Your task to perform on an android device: How big is a tiger? Image 0: 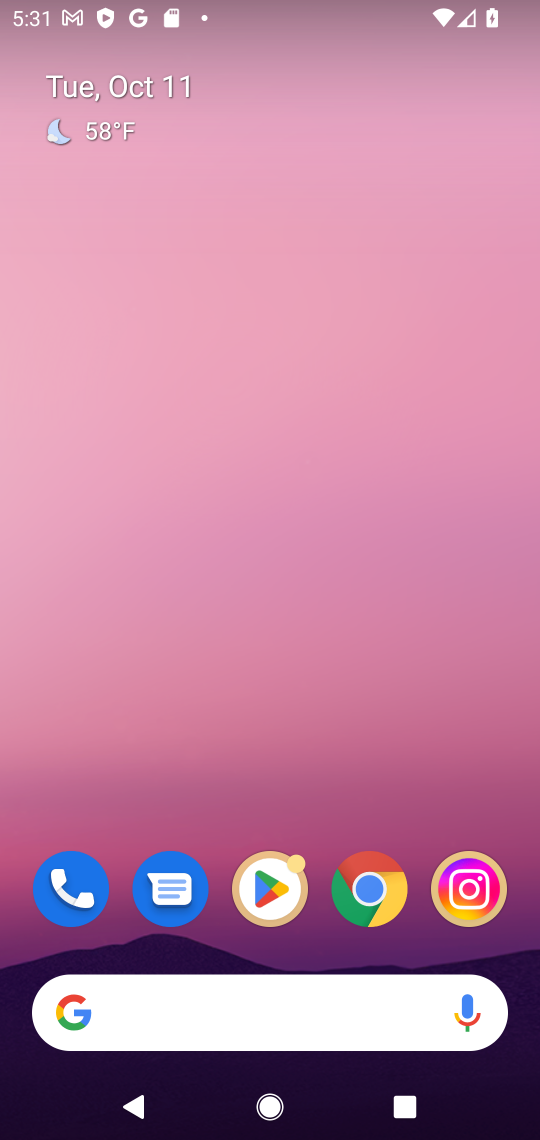
Step 0: drag from (238, 522) to (228, 321)
Your task to perform on an android device: How big is a tiger? Image 1: 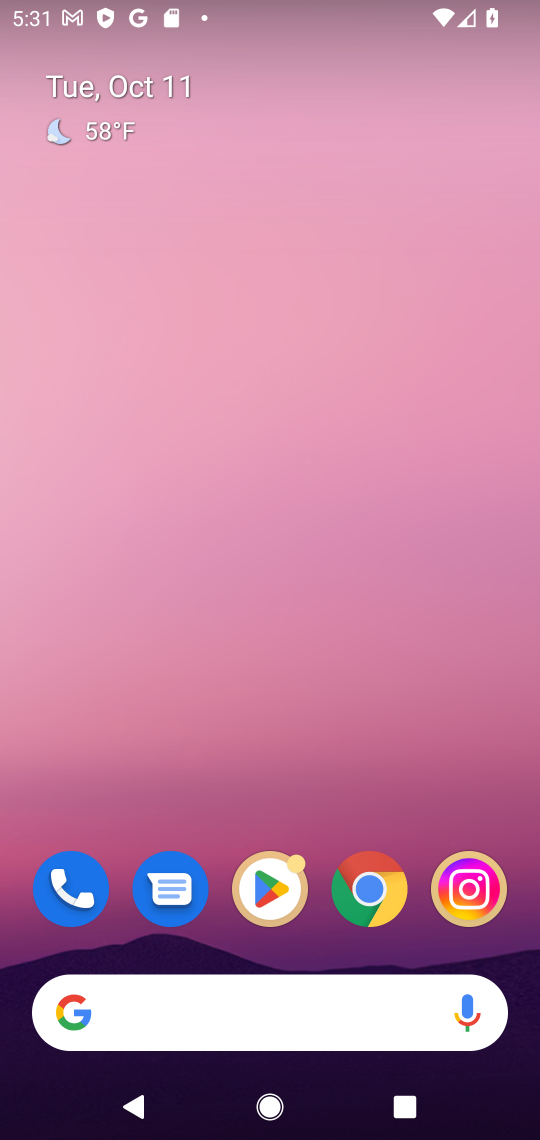
Step 1: drag from (154, 943) to (194, 261)
Your task to perform on an android device: How big is a tiger? Image 2: 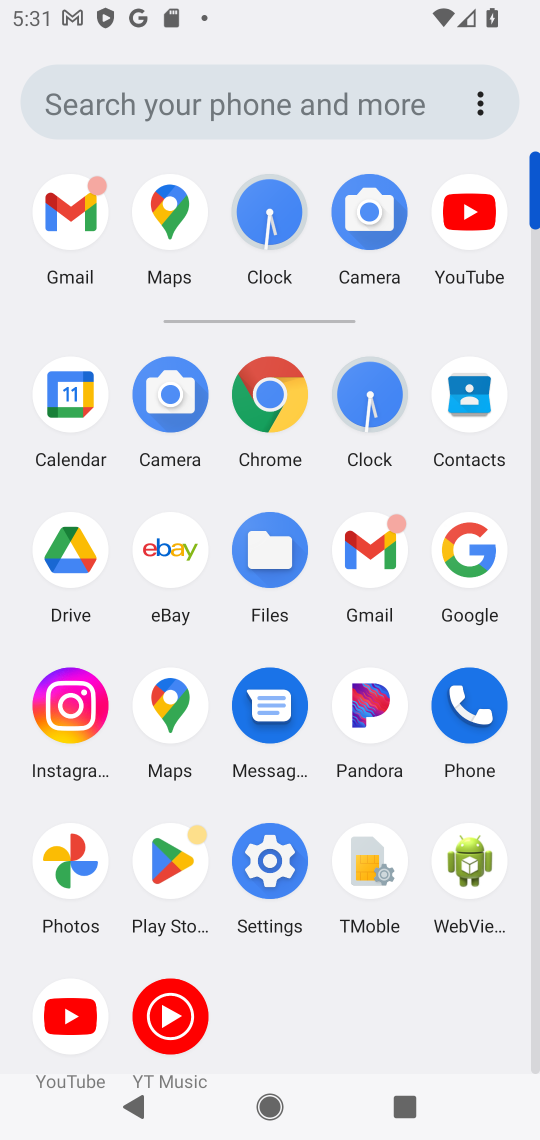
Step 2: click (457, 530)
Your task to perform on an android device: How big is a tiger? Image 3: 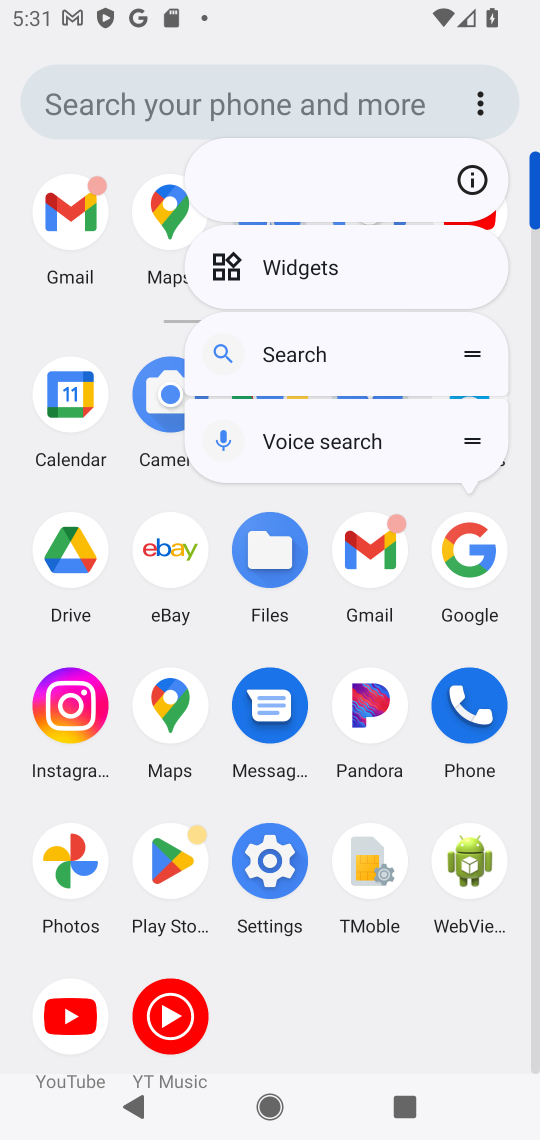
Step 3: click (466, 541)
Your task to perform on an android device: How big is a tiger? Image 4: 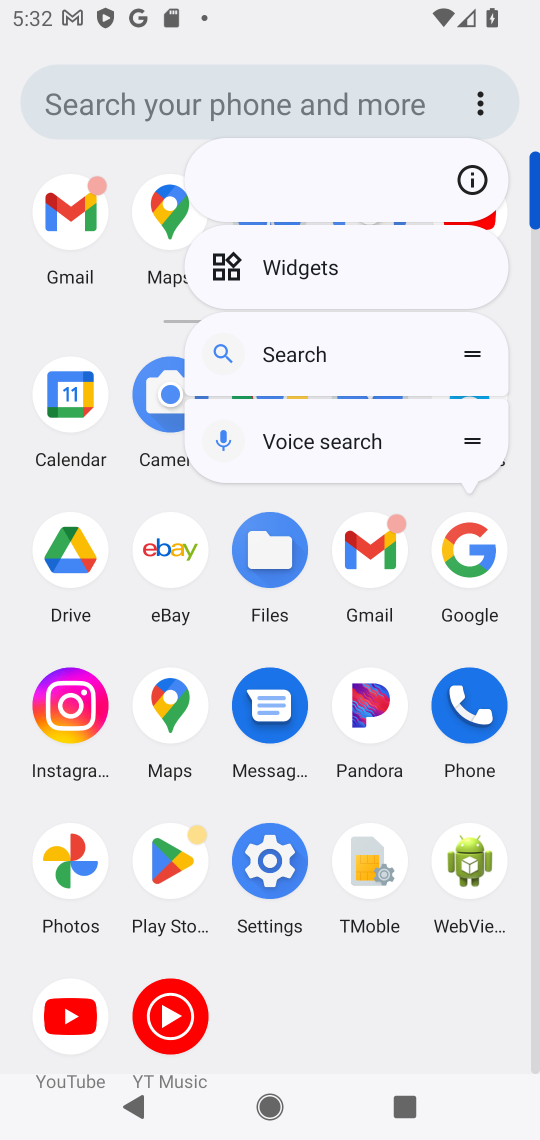
Step 4: click (466, 541)
Your task to perform on an android device: How big is a tiger? Image 5: 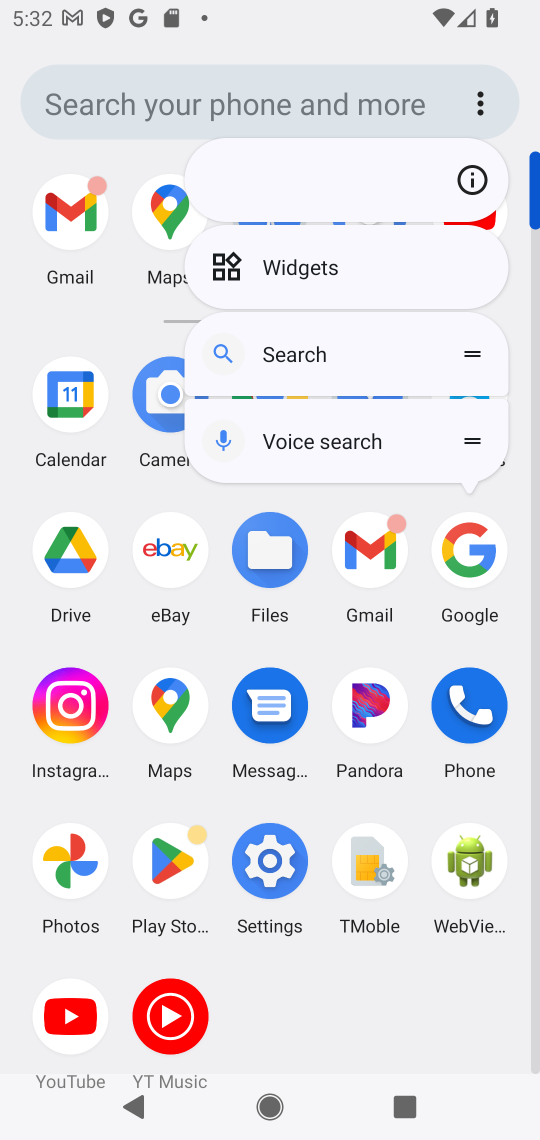
Step 5: click (466, 541)
Your task to perform on an android device: How big is a tiger? Image 6: 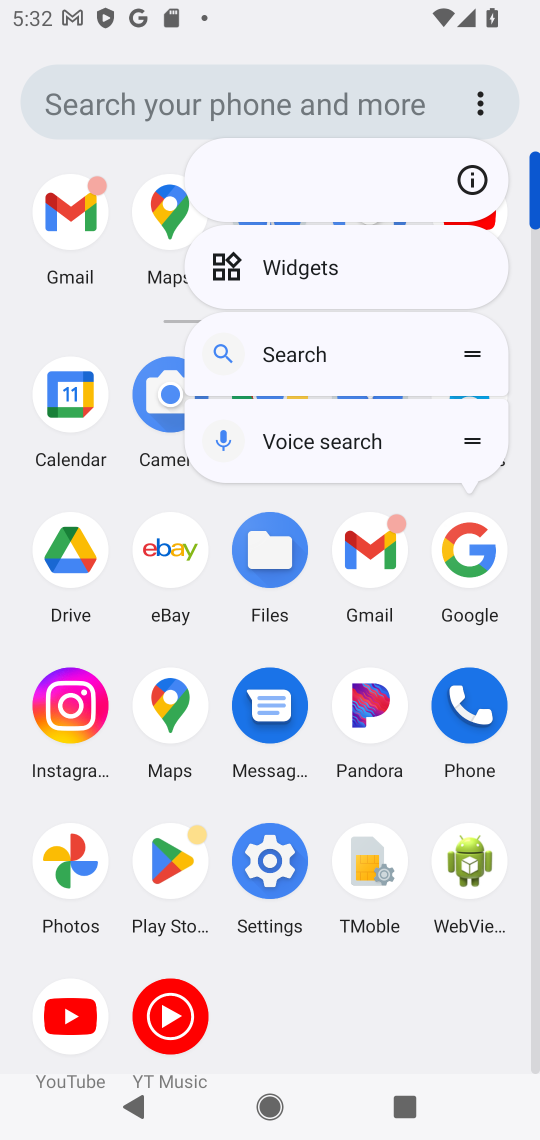
Step 6: click (471, 526)
Your task to perform on an android device: How big is a tiger? Image 7: 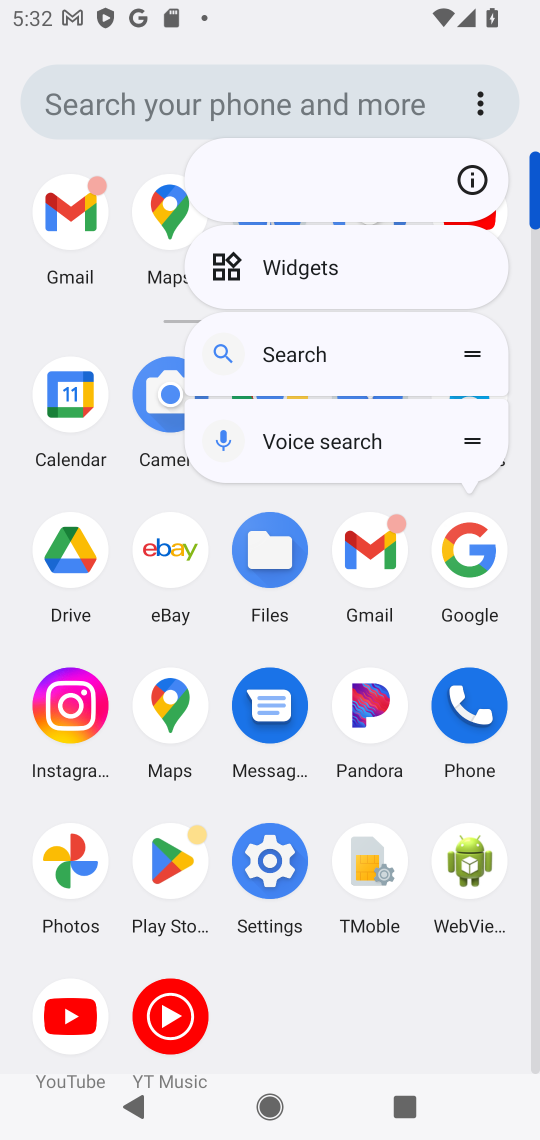
Step 7: click (463, 548)
Your task to perform on an android device: How big is a tiger? Image 8: 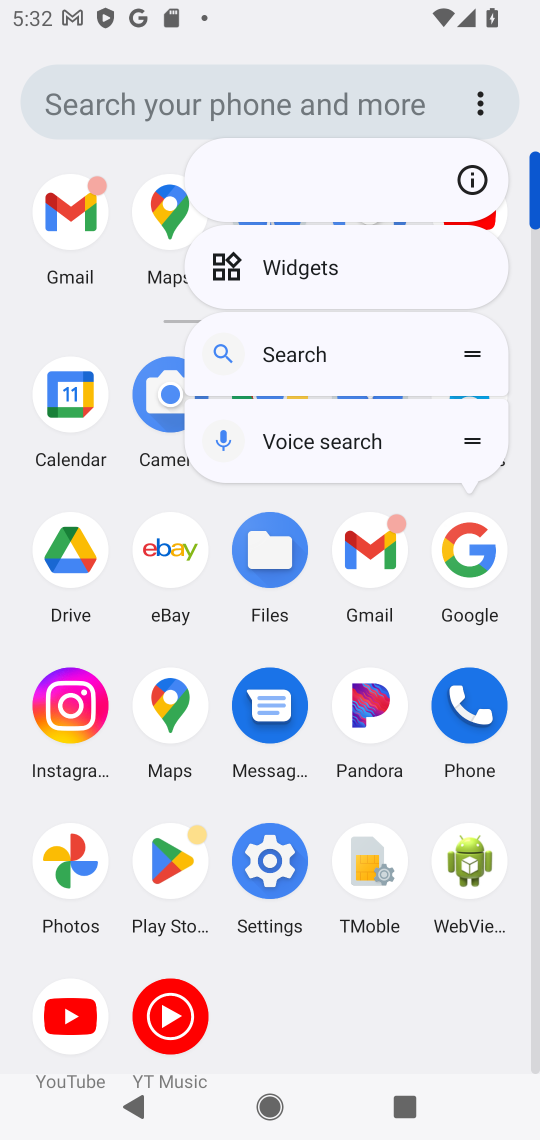
Step 8: click (463, 548)
Your task to perform on an android device: How big is a tiger? Image 9: 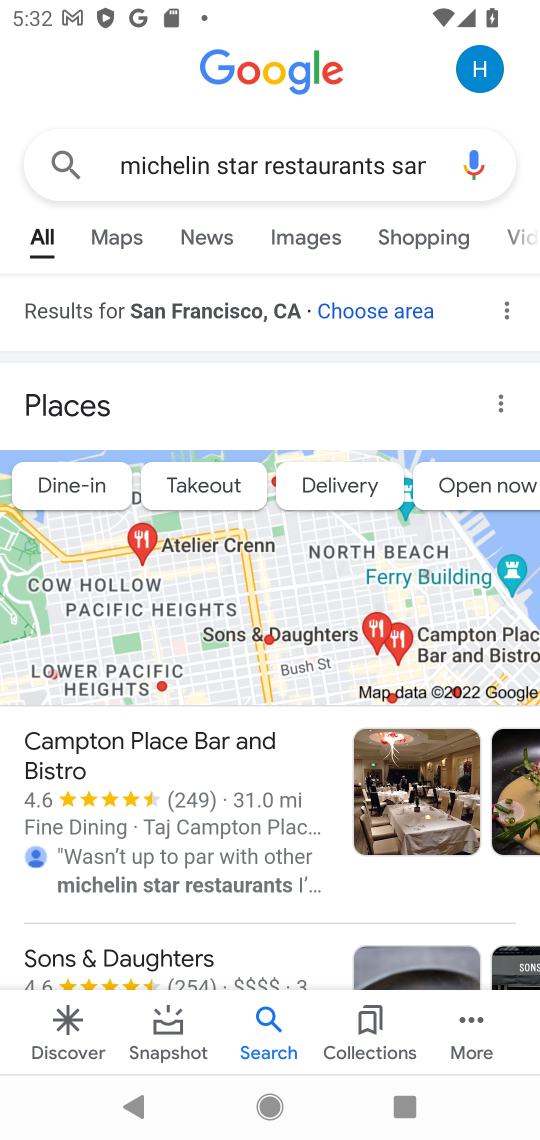
Step 9: click (223, 171)
Your task to perform on an android device: How big is a tiger? Image 10: 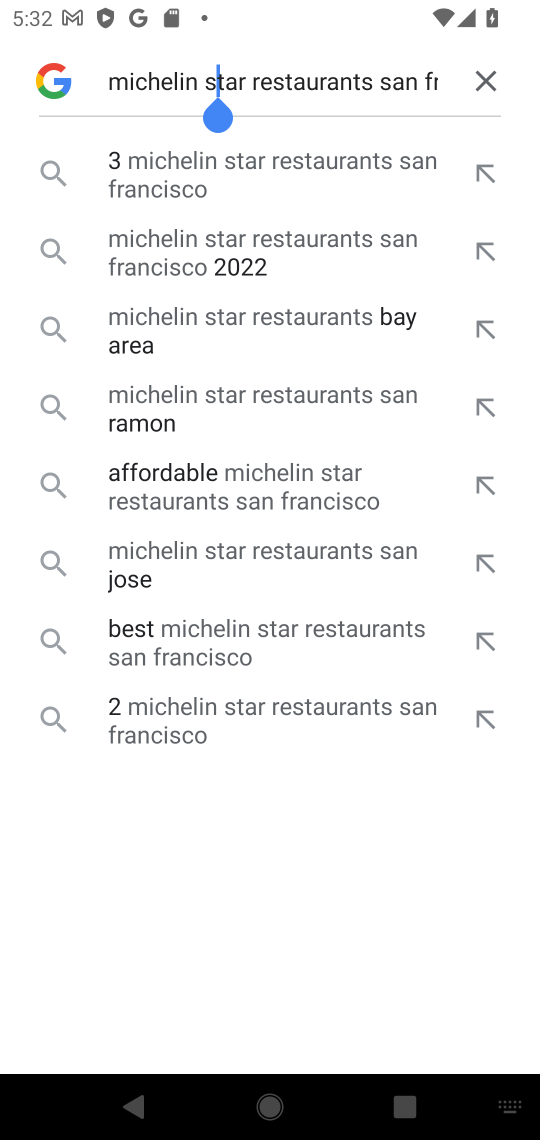
Step 10: click (477, 75)
Your task to perform on an android device: How big is a tiger? Image 11: 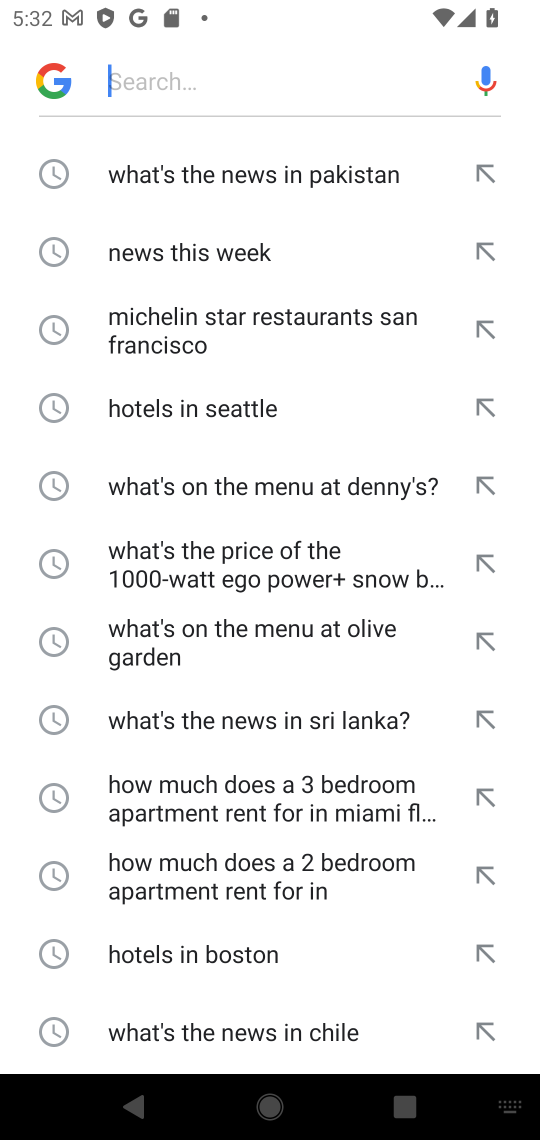
Step 11: click (353, 75)
Your task to perform on an android device: How big is a tiger? Image 12: 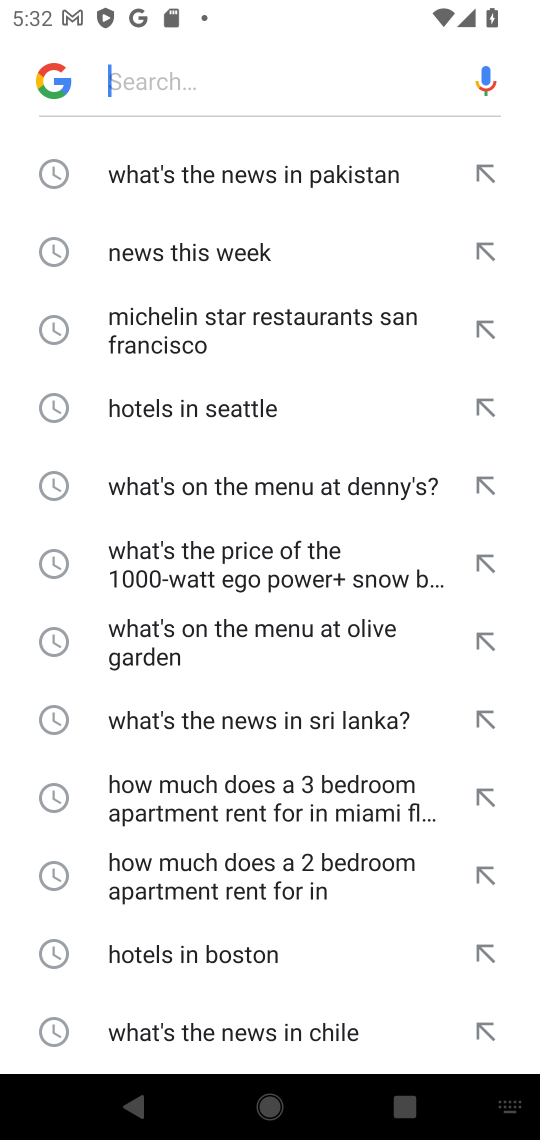
Step 12: click (255, 1133)
Your task to perform on an android device: How big is a tiger? Image 13: 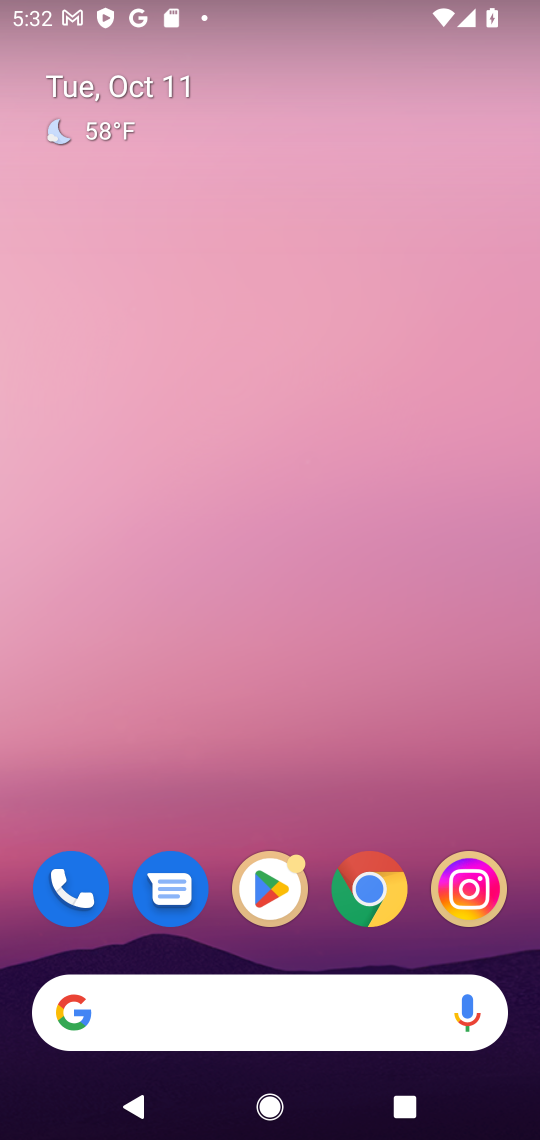
Step 13: drag from (187, 802) to (187, 257)
Your task to perform on an android device: How big is a tiger? Image 14: 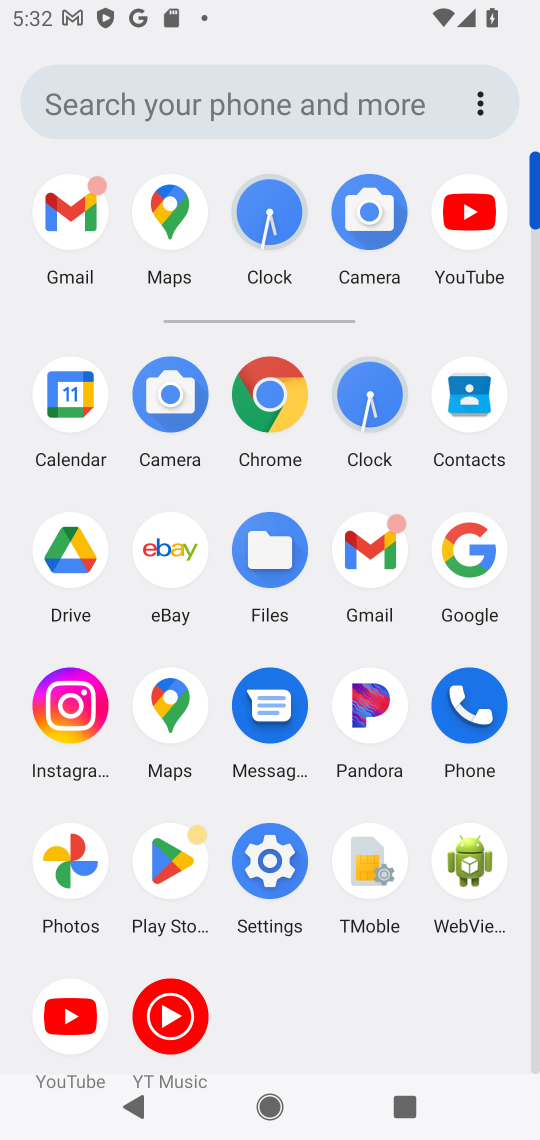
Step 14: click (450, 537)
Your task to perform on an android device: How big is a tiger? Image 15: 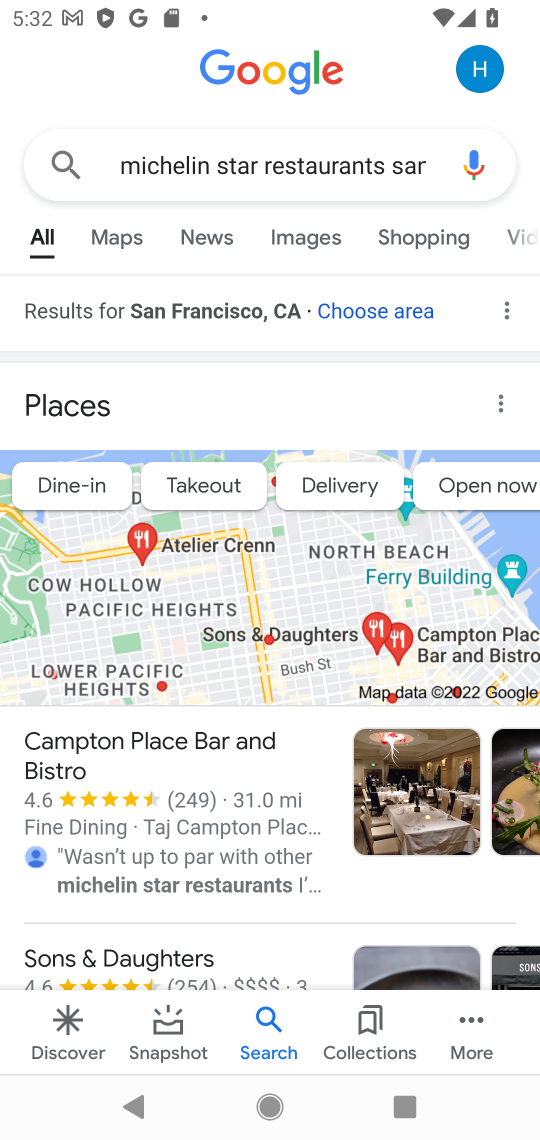
Step 15: click (376, 155)
Your task to perform on an android device: How big is a tiger? Image 16: 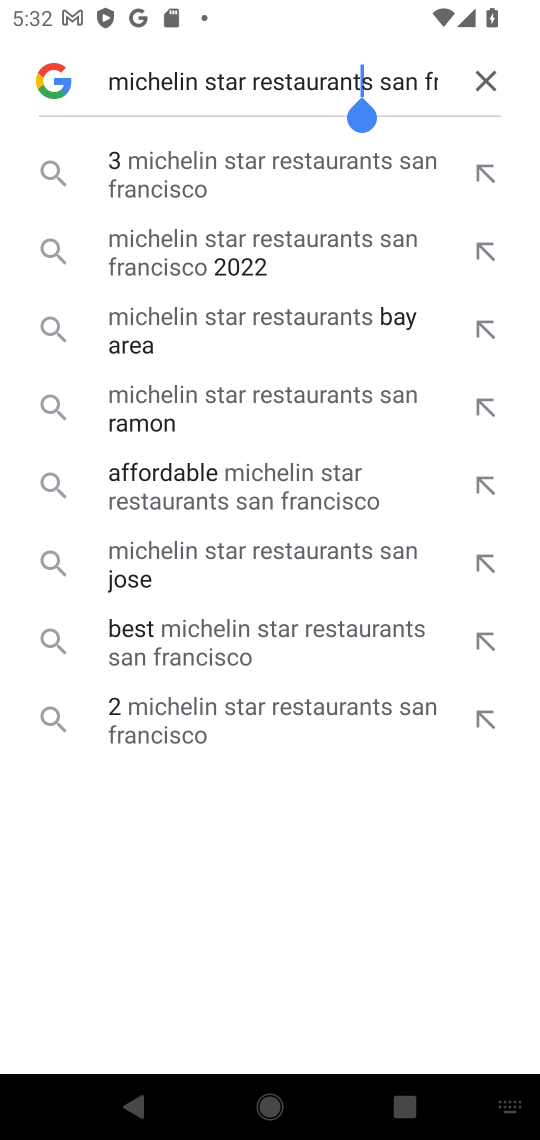
Step 16: click (468, 81)
Your task to perform on an android device: How big is a tiger? Image 17: 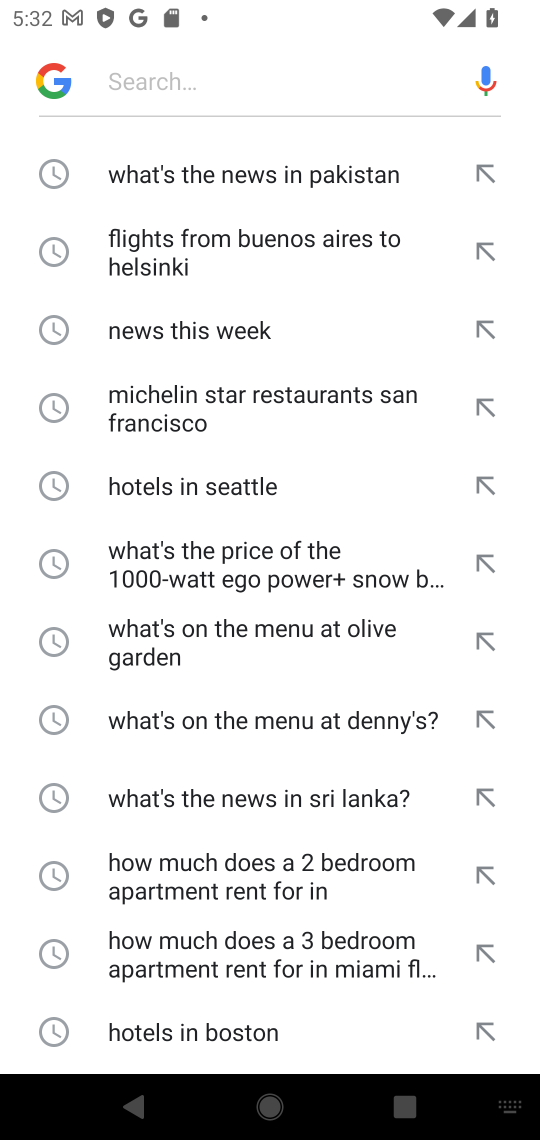
Step 17: click (155, 66)
Your task to perform on an android device: How big is a tiger? Image 18: 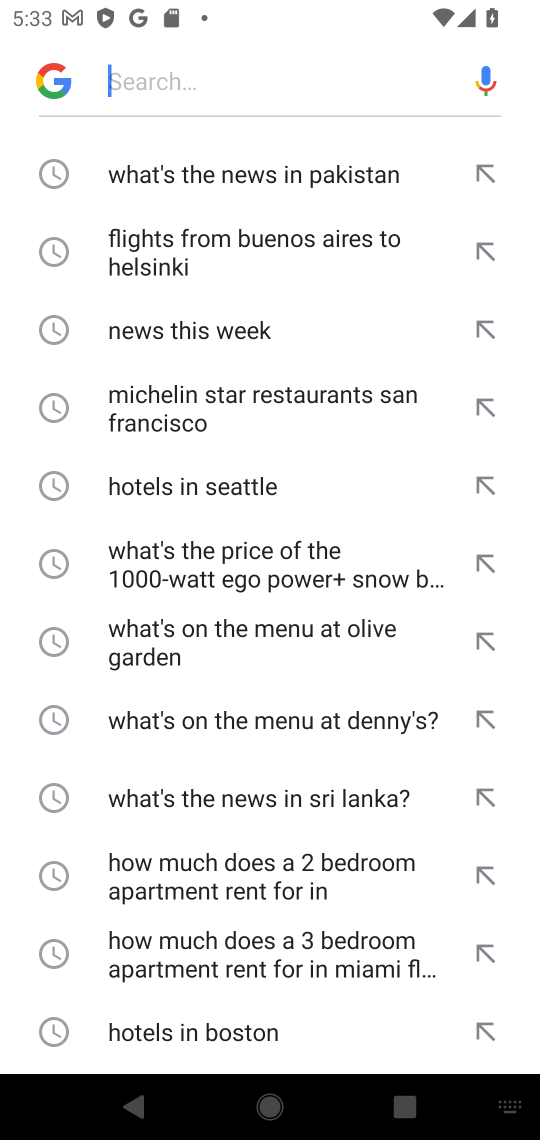
Step 18: click (155, 66)
Your task to perform on an android device: How big is a tiger? Image 19: 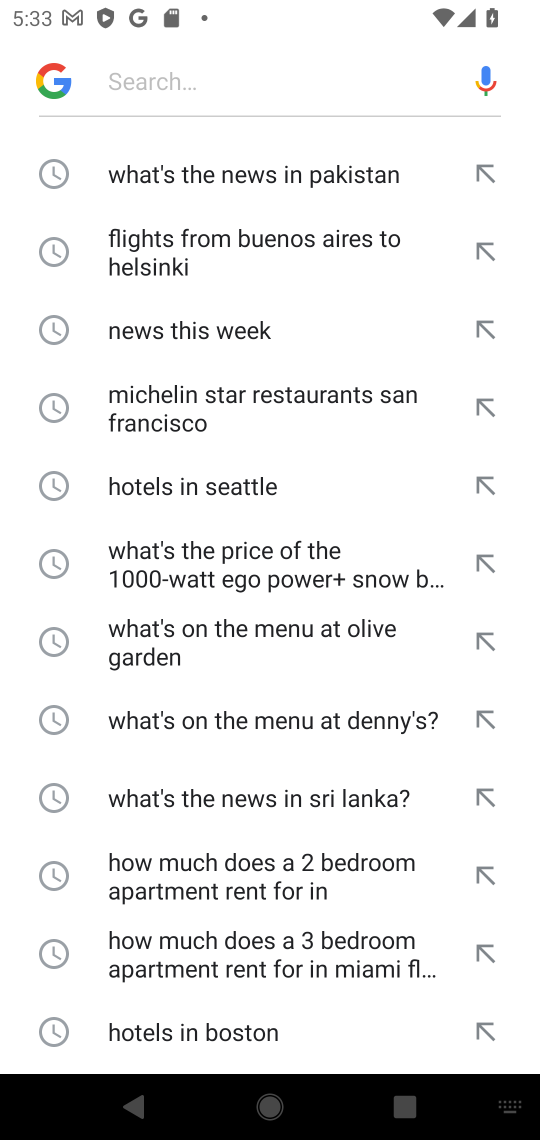
Step 19: type "How big is a tiger? "
Your task to perform on an android device: How big is a tiger? Image 20: 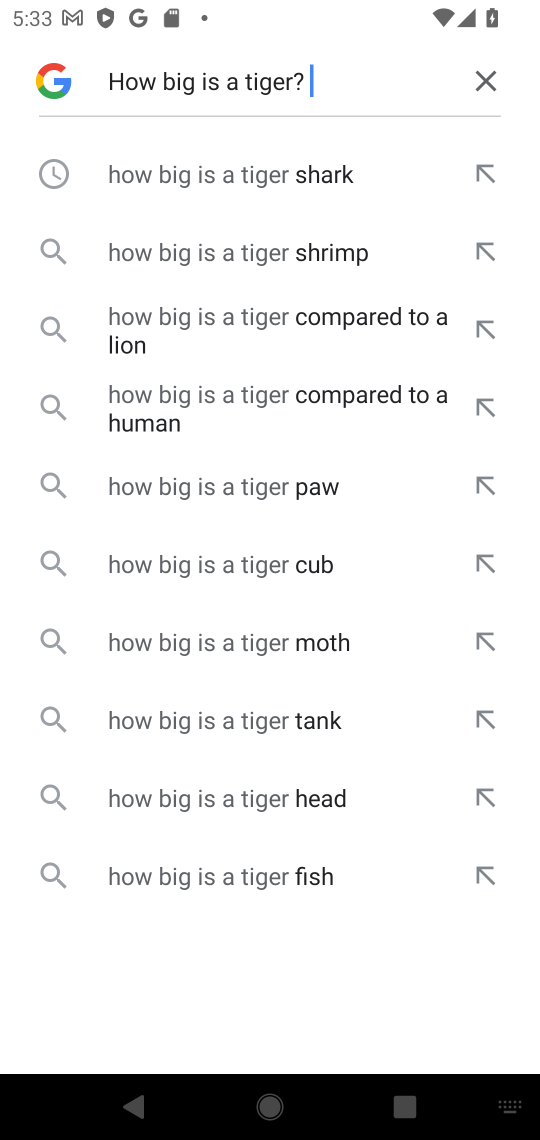
Step 20: click (261, 572)
Your task to perform on an android device: How big is a tiger? Image 21: 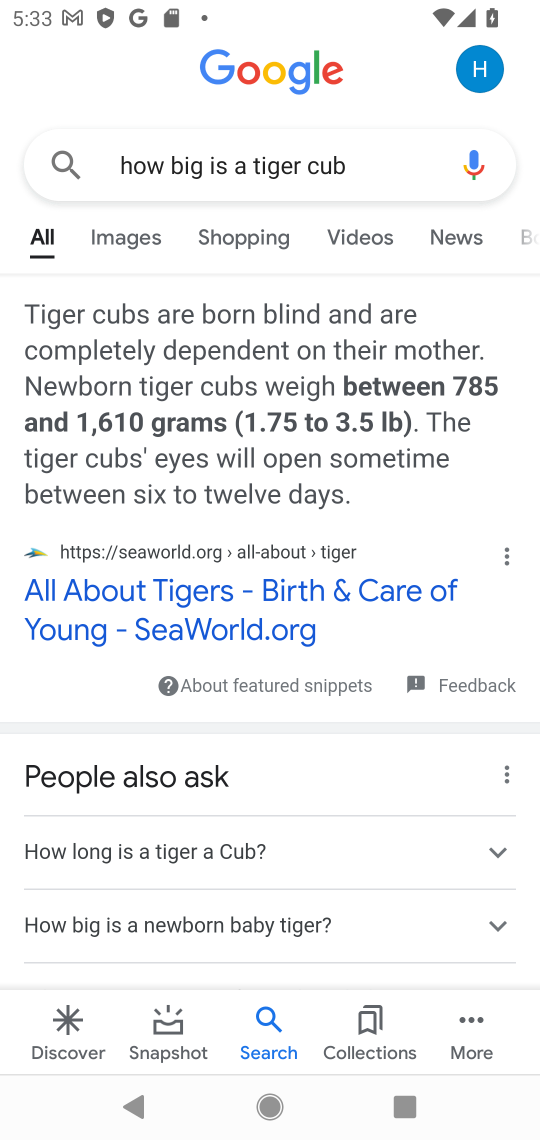
Step 21: click (245, 610)
Your task to perform on an android device: How big is a tiger? Image 22: 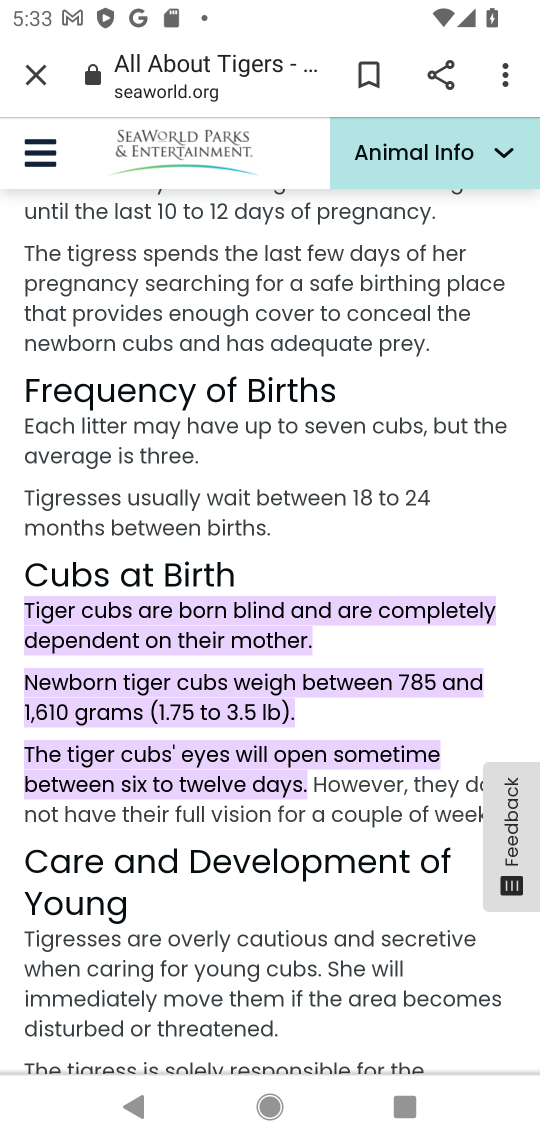
Step 22: click (34, 84)
Your task to perform on an android device: How big is a tiger? Image 23: 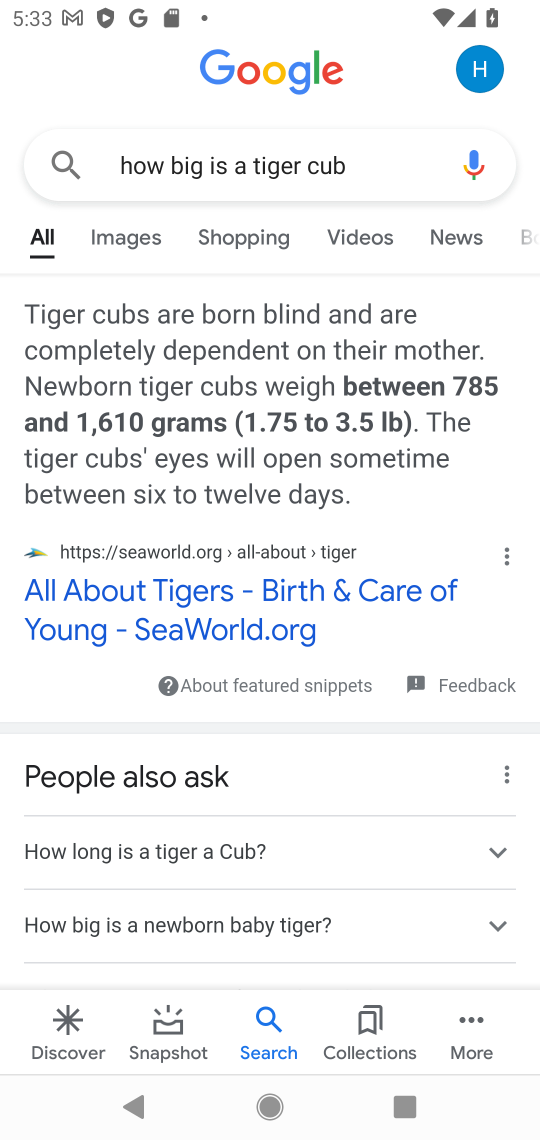
Step 23: task complete